Your task to perform on an android device: turn pop-ups off in chrome Image 0: 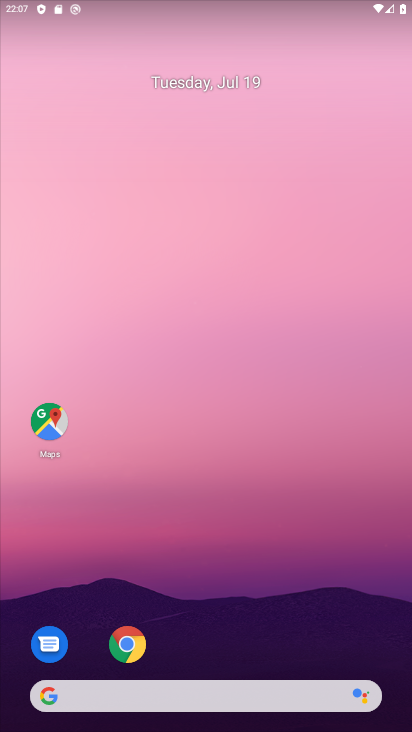
Step 0: drag from (306, 624) to (285, 96)
Your task to perform on an android device: turn pop-ups off in chrome Image 1: 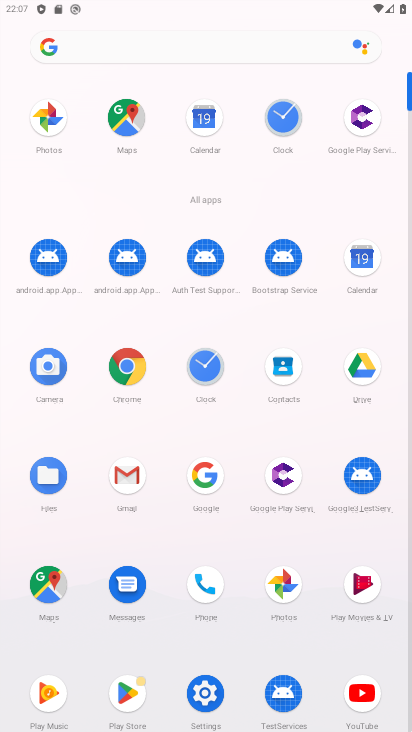
Step 1: click (127, 362)
Your task to perform on an android device: turn pop-ups off in chrome Image 2: 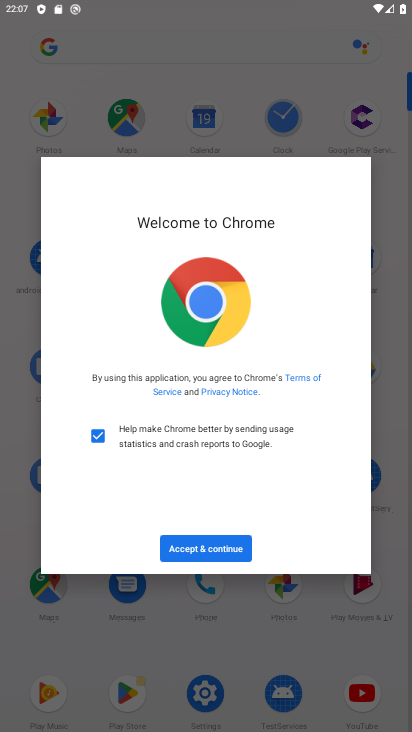
Step 2: click (179, 554)
Your task to perform on an android device: turn pop-ups off in chrome Image 3: 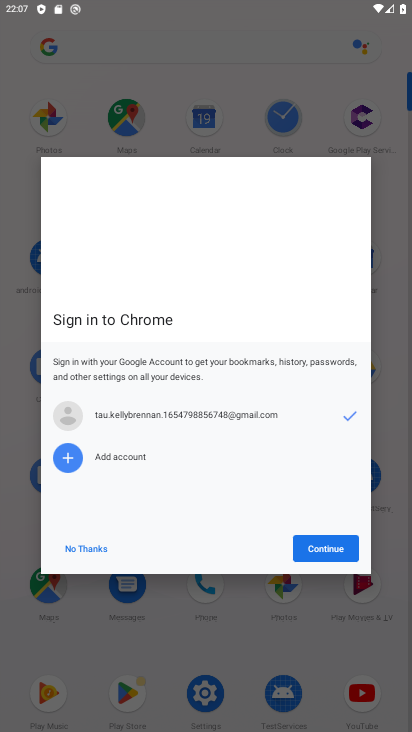
Step 3: click (313, 538)
Your task to perform on an android device: turn pop-ups off in chrome Image 4: 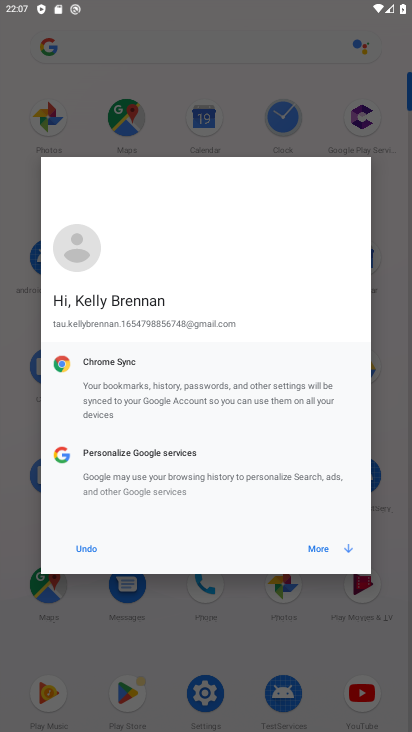
Step 4: click (336, 550)
Your task to perform on an android device: turn pop-ups off in chrome Image 5: 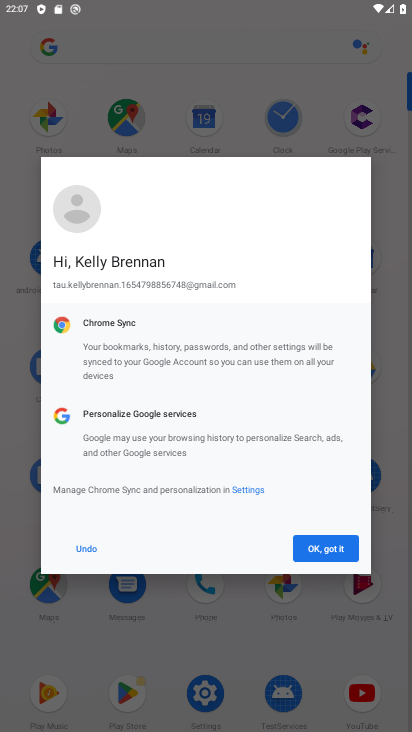
Step 5: click (329, 542)
Your task to perform on an android device: turn pop-ups off in chrome Image 6: 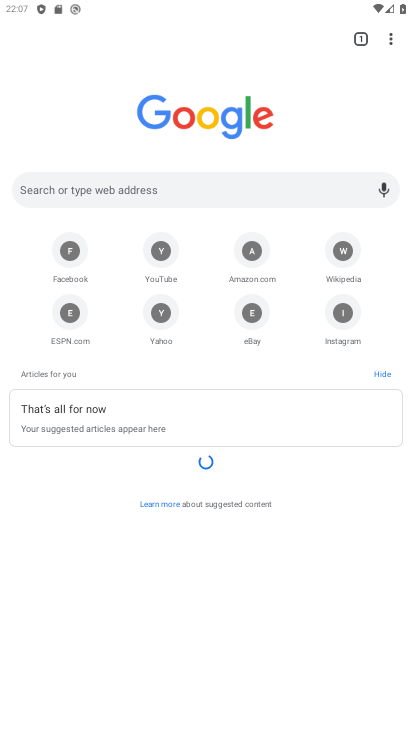
Step 6: drag from (388, 36) to (275, 317)
Your task to perform on an android device: turn pop-ups off in chrome Image 7: 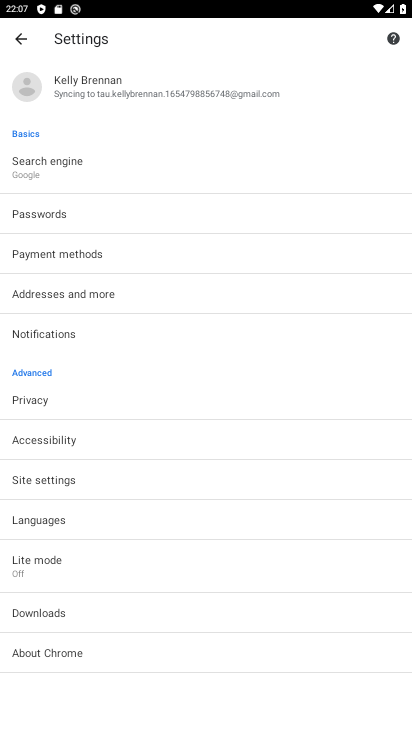
Step 7: drag from (121, 595) to (126, 281)
Your task to perform on an android device: turn pop-ups off in chrome Image 8: 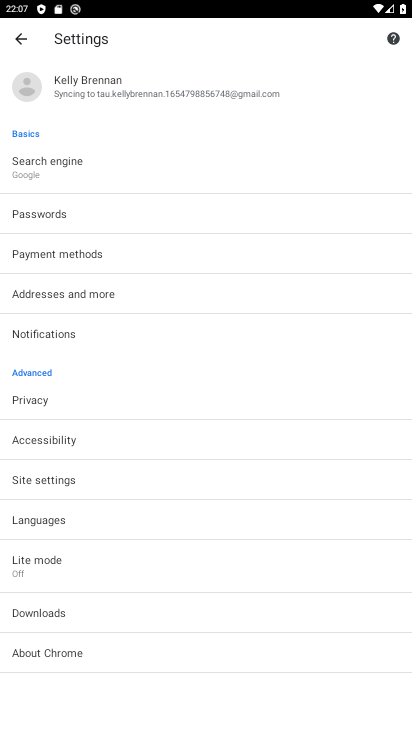
Step 8: click (68, 476)
Your task to perform on an android device: turn pop-ups off in chrome Image 9: 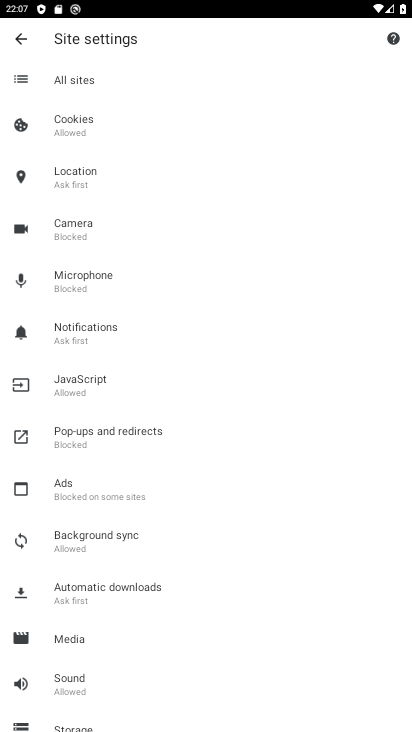
Step 9: click (101, 429)
Your task to perform on an android device: turn pop-ups off in chrome Image 10: 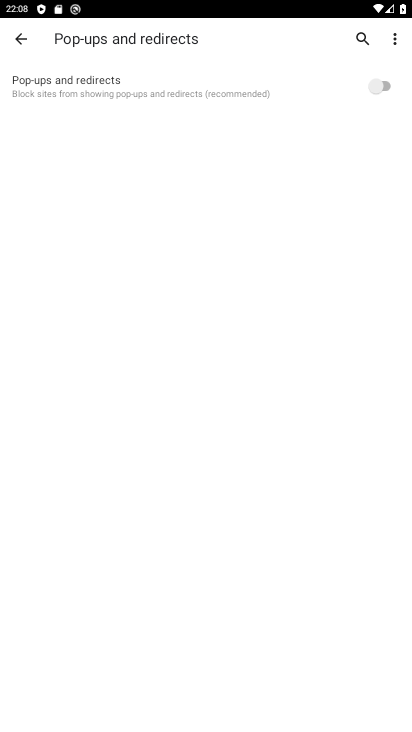
Step 10: task complete